Your task to perform on an android device: toggle priority inbox in the gmail app Image 0: 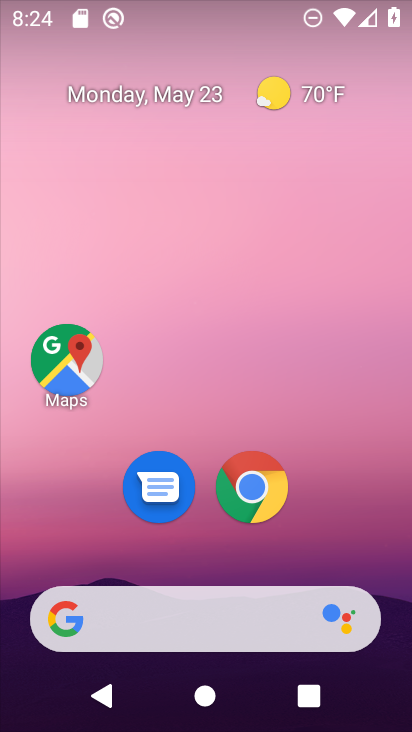
Step 0: drag from (226, 581) to (265, 195)
Your task to perform on an android device: toggle priority inbox in the gmail app Image 1: 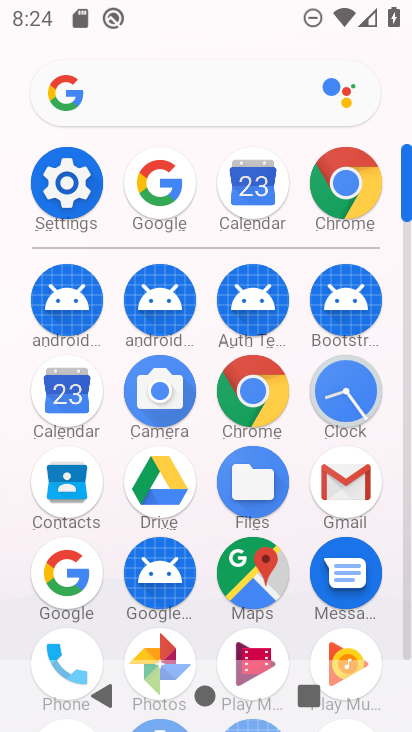
Step 1: click (347, 491)
Your task to perform on an android device: toggle priority inbox in the gmail app Image 2: 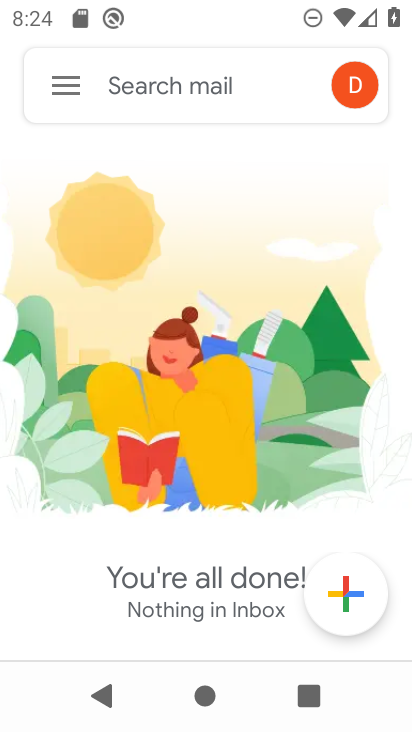
Step 2: click (58, 84)
Your task to perform on an android device: toggle priority inbox in the gmail app Image 3: 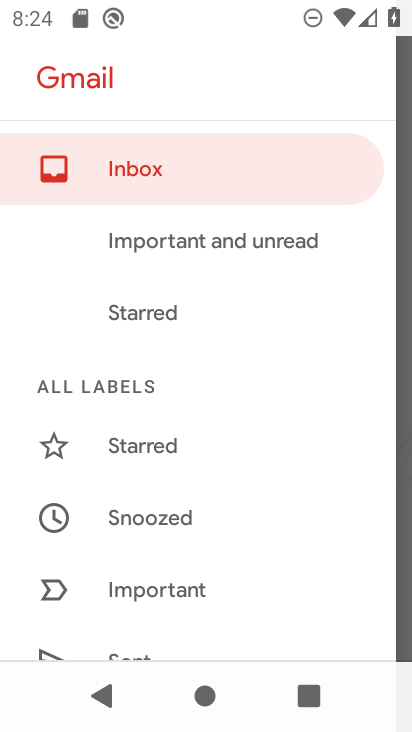
Step 3: drag from (128, 567) to (176, 219)
Your task to perform on an android device: toggle priority inbox in the gmail app Image 4: 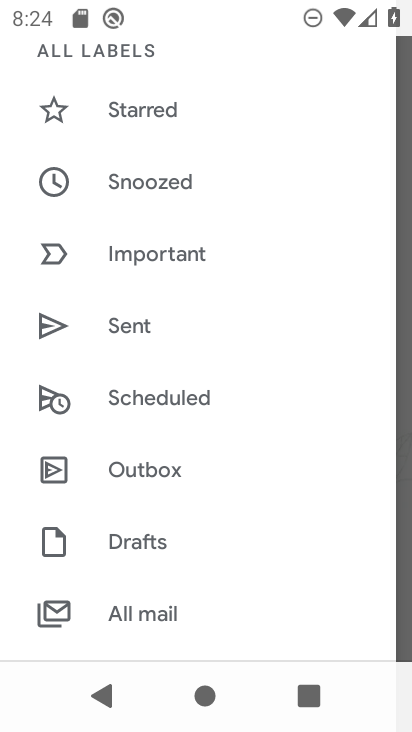
Step 4: drag from (158, 608) to (215, 175)
Your task to perform on an android device: toggle priority inbox in the gmail app Image 5: 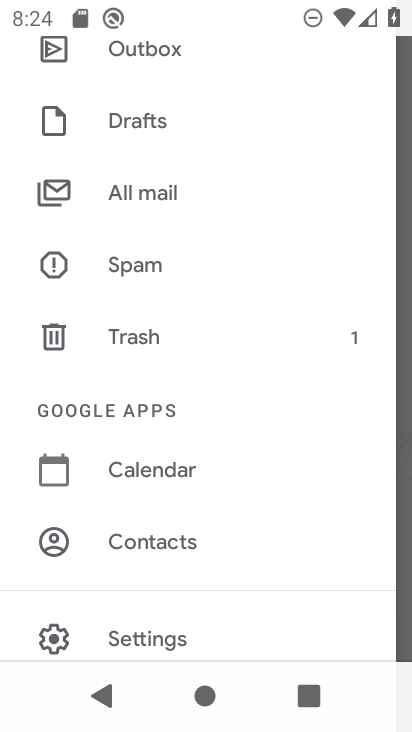
Step 5: click (124, 642)
Your task to perform on an android device: toggle priority inbox in the gmail app Image 6: 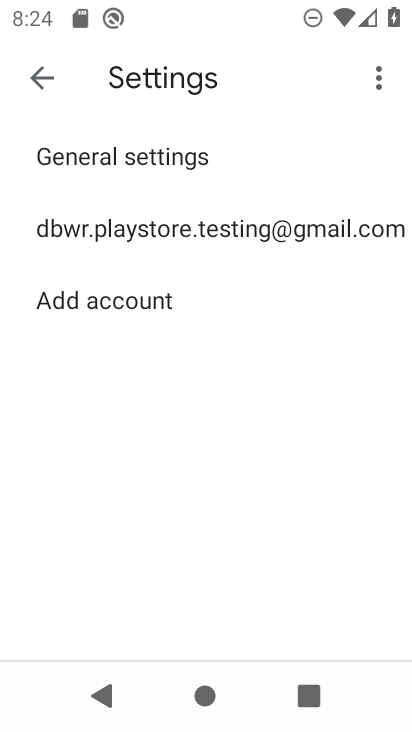
Step 6: click (216, 225)
Your task to perform on an android device: toggle priority inbox in the gmail app Image 7: 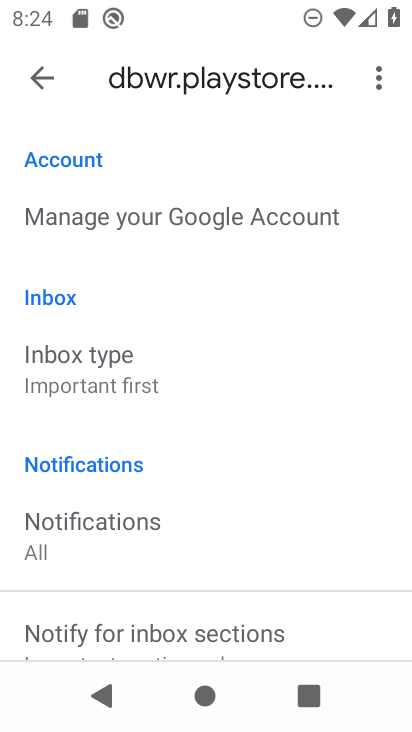
Step 7: click (115, 385)
Your task to perform on an android device: toggle priority inbox in the gmail app Image 8: 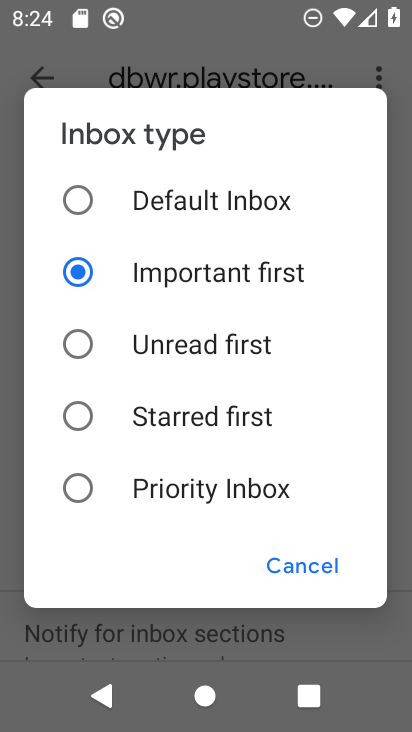
Step 8: click (129, 497)
Your task to perform on an android device: toggle priority inbox in the gmail app Image 9: 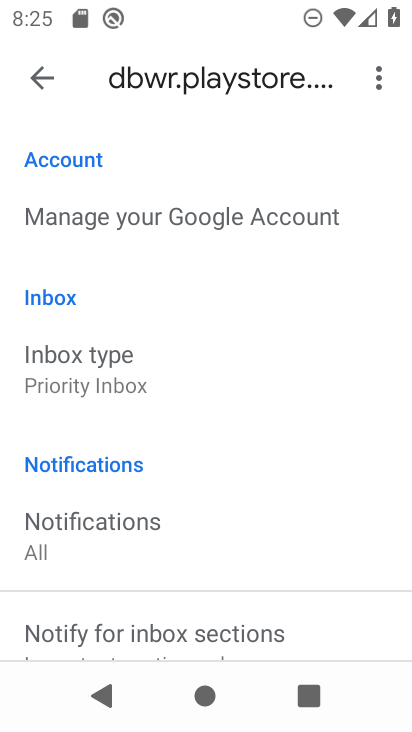
Step 9: task complete